Your task to perform on an android device: Go to sound settings Image 0: 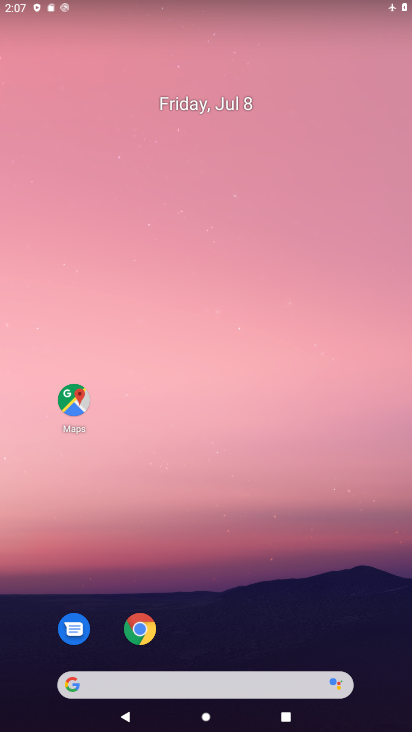
Step 0: drag from (123, 488) to (265, 34)
Your task to perform on an android device: Go to sound settings Image 1: 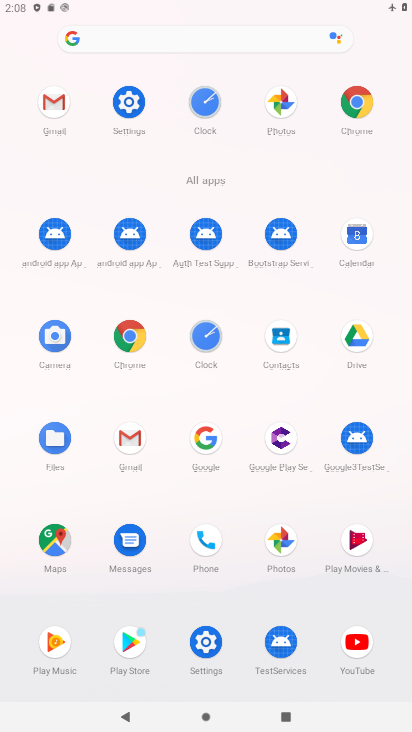
Step 1: click (201, 656)
Your task to perform on an android device: Go to sound settings Image 2: 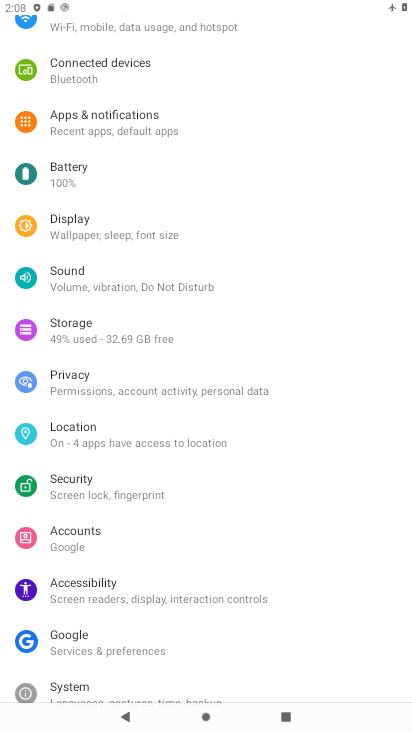
Step 2: click (77, 282)
Your task to perform on an android device: Go to sound settings Image 3: 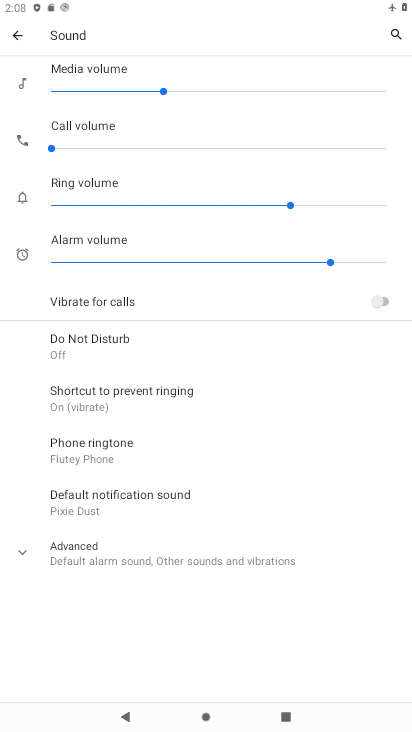
Step 3: task complete